Your task to perform on an android device: Go to accessibility settings Image 0: 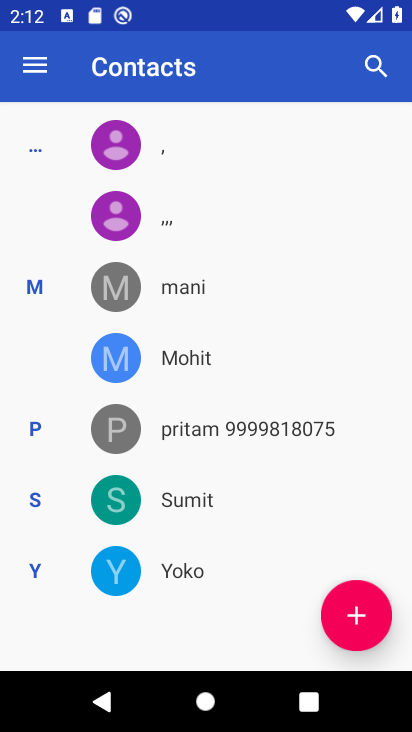
Step 0: press home button
Your task to perform on an android device: Go to accessibility settings Image 1: 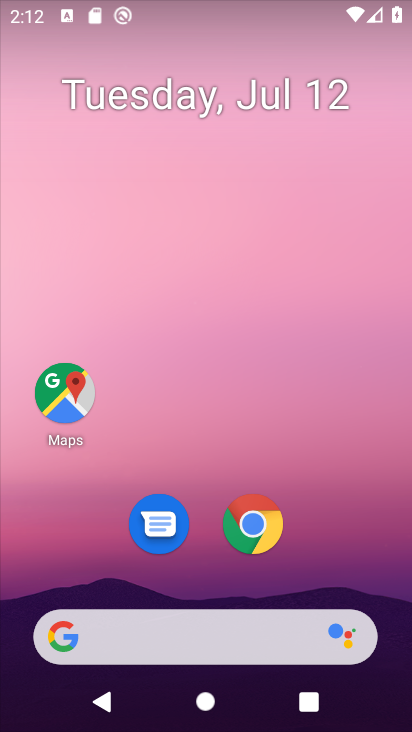
Step 1: drag from (347, 538) to (335, 2)
Your task to perform on an android device: Go to accessibility settings Image 2: 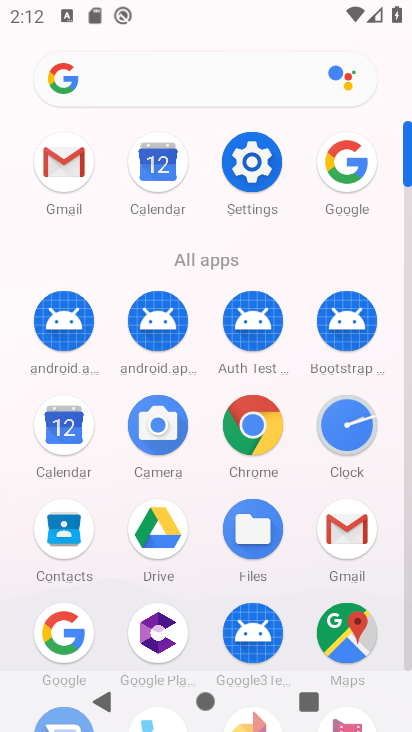
Step 2: click (262, 161)
Your task to perform on an android device: Go to accessibility settings Image 3: 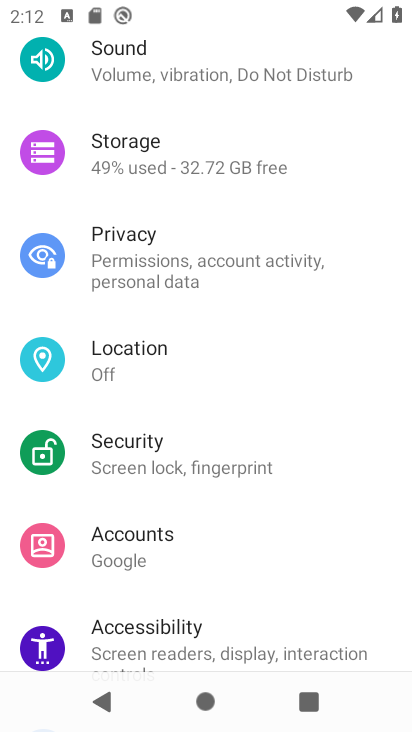
Step 3: click (164, 627)
Your task to perform on an android device: Go to accessibility settings Image 4: 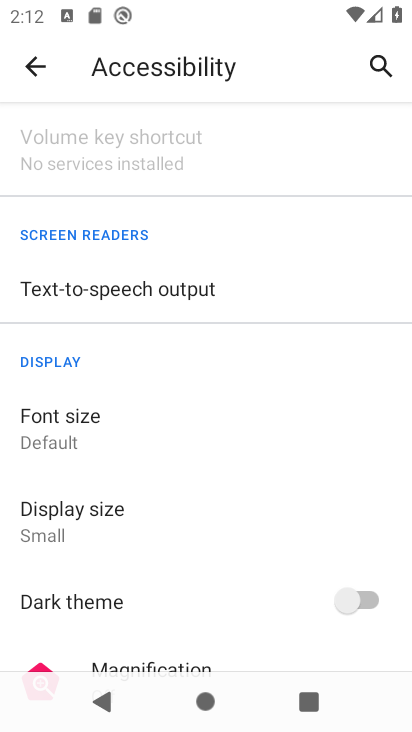
Step 4: task complete